Your task to perform on an android device: turn off airplane mode Image 0: 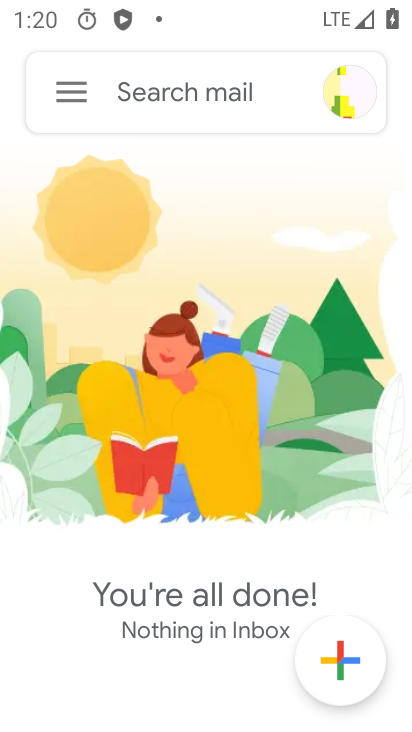
Step 0: press home button
Your task to perform on an android device: turn off airplane mode Image 1: 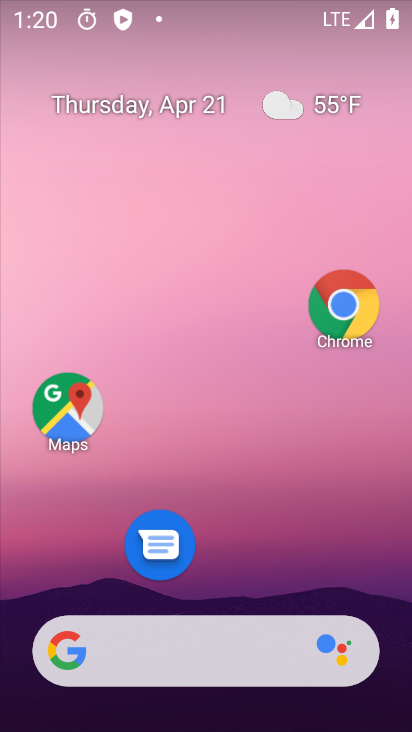
Step 1: drag from (223, 622) to (264, 230)
Your task to perform on an android device: turn off airplane mode Image 2: 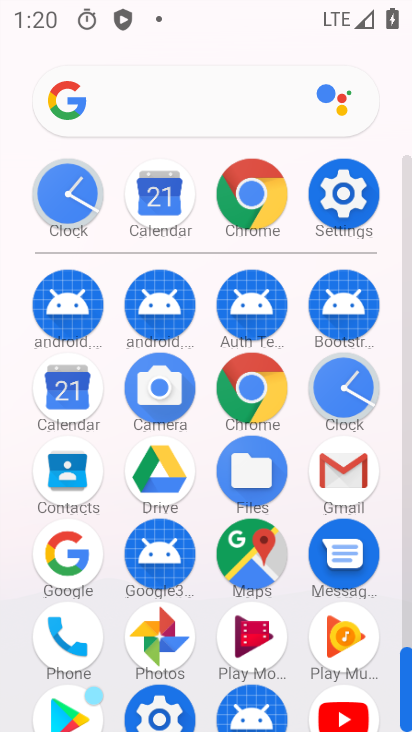
Step 2: click (357, 203)
Your task to perform on an android device: turn off airplane mode Image 3: 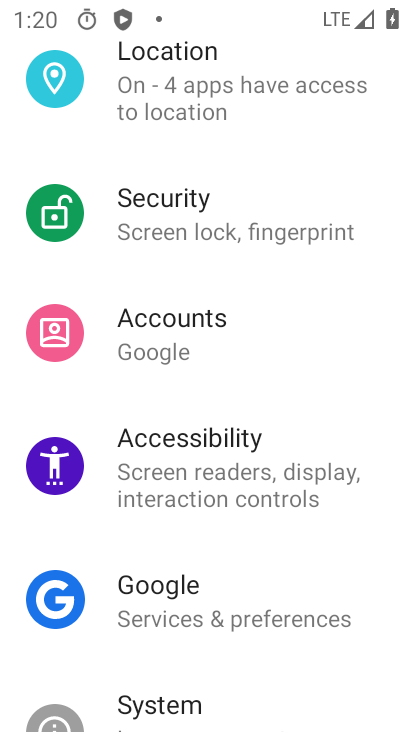
Step 3: drag from (271, 190) to (252, 523)
Your task to perform on an android device: turn off airplane mode Image 4: 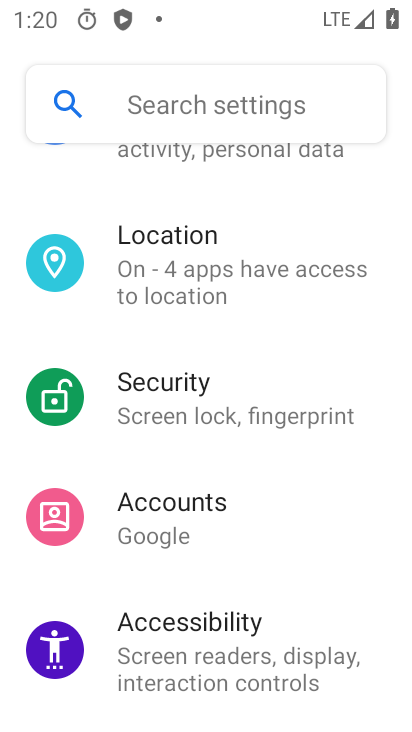
Step 4: drag from (293, 211) to (226, 564)
Your task to perform on an android device: turn off airplane mode Image 5: 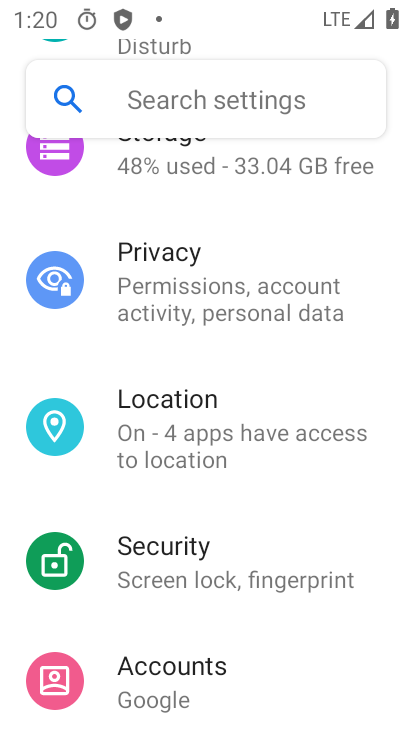
Step 5: drag from (287, 195) to (240, 555)
Your task to perform on an android device: turn off airplane mode Image 6: 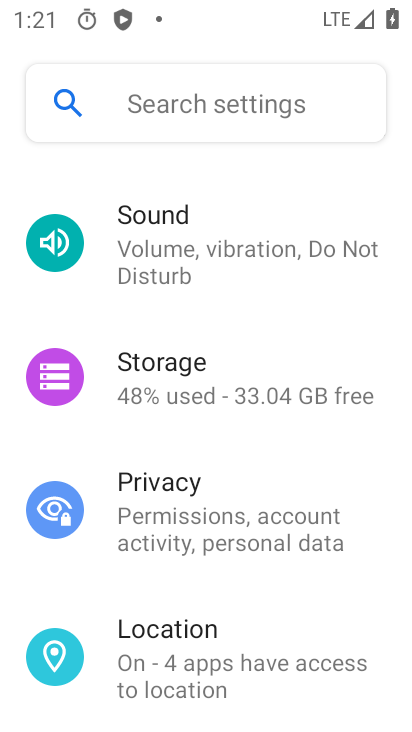
Step 6: drag from (275, 187) to (214, 568)
Your task to perform on an android device: turn off airplane mode Image 7: 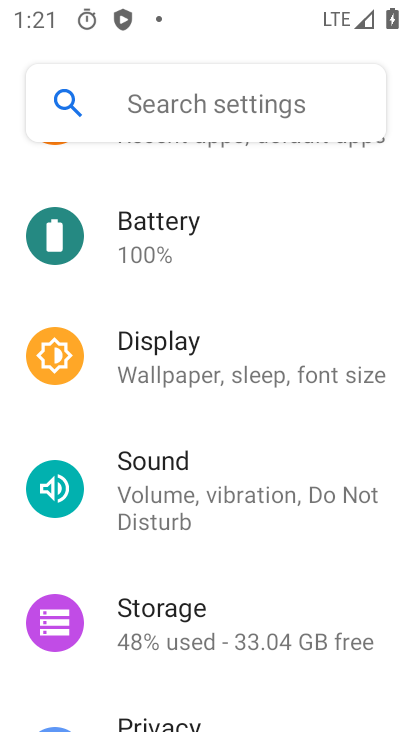
Step 7: drag from (262, 223) to (178, 544)
Your task to perform on an android device: turn off airplane mode Image 8: 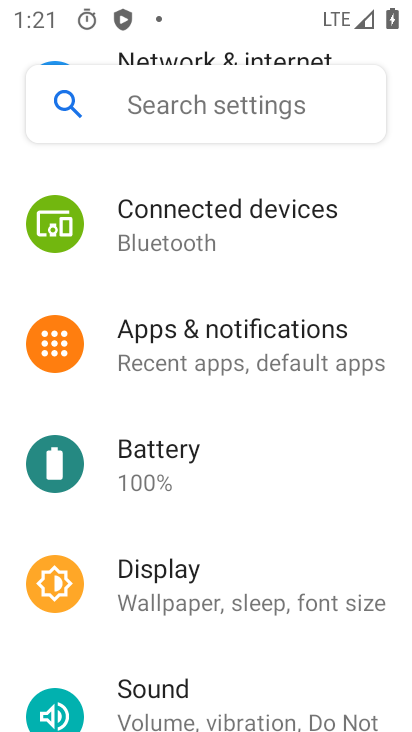
Step 8: drag from (274, 282) to (195, 610)
Your task to perform on an android device: turn off airplane mode Image 9: 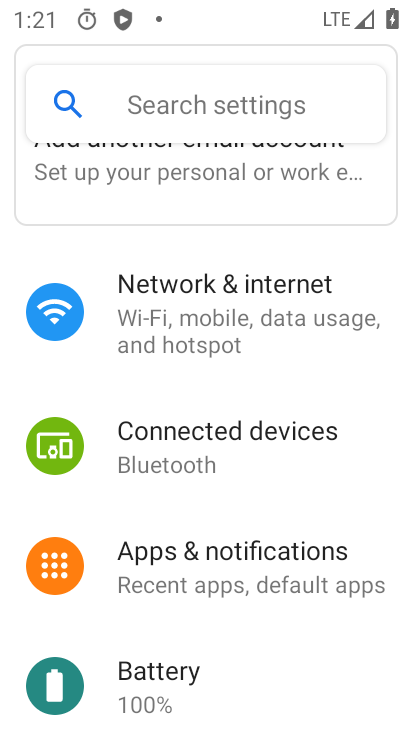
Step 9: click (302, 324)
Your task to perform on an android device: turn off airplane mode Image 10: 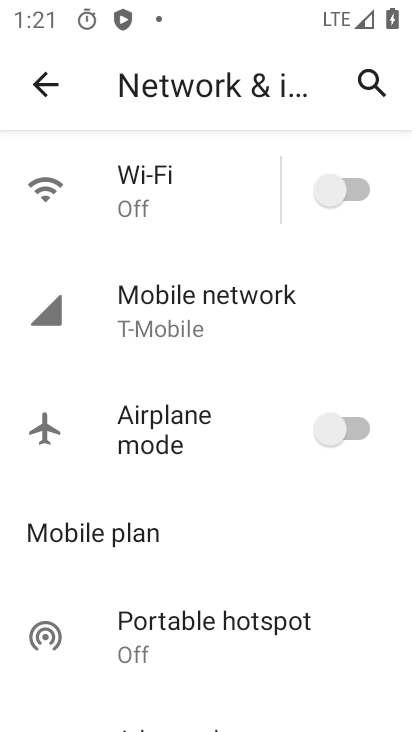
Step 10: task complete